Your task to perform on an android device: clear all cookies in the chrome app Image 0: 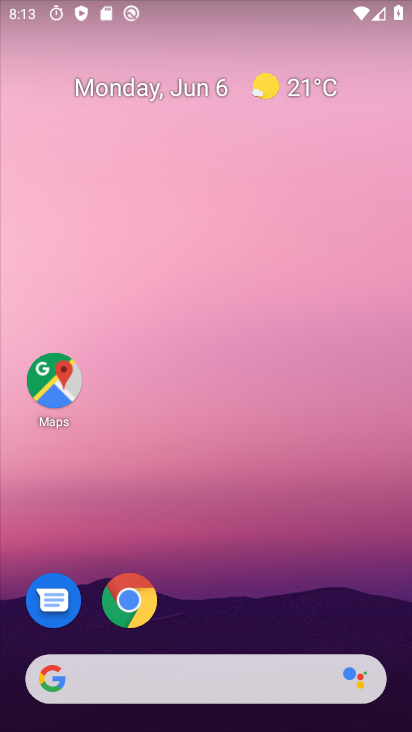
Step 0: drag from (258, 523) to (254, 21)
Your task to perform on an android device: clear all cookies in the chrome app Image 1: 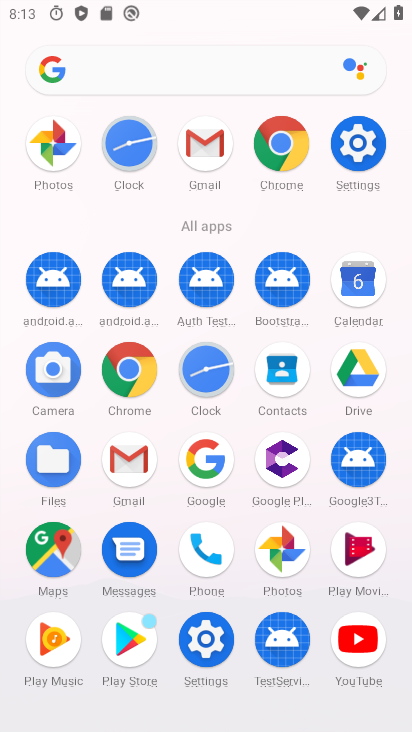
Step 1: click (124, 363)
Your task to perform on an android device: clear all cookies in the chrome app Image 2: 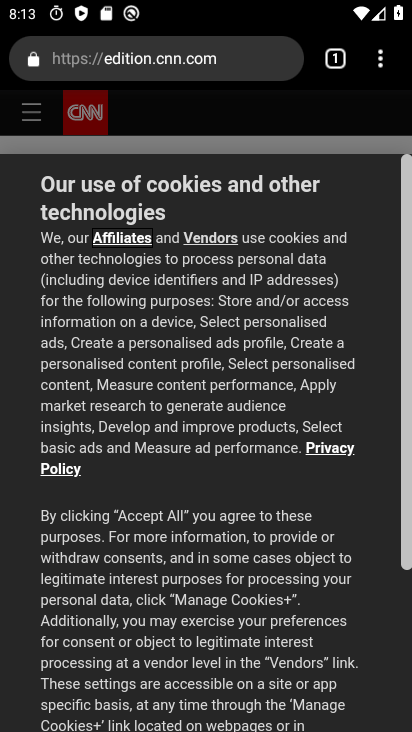
Step 2: drag from (384, 61) to (211, 333)
Your task to perform on an android device: clear all cookies in the chrome app Image 3: 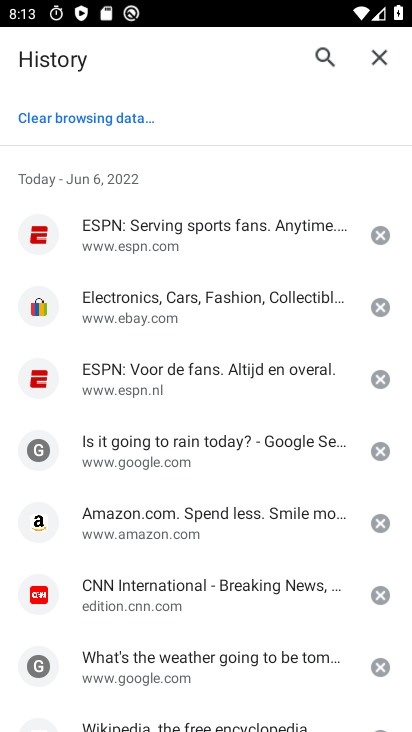
Step 3: click (387, 56)
Your task to perform on an android device: clear all cookies in the chrome app Image 4: 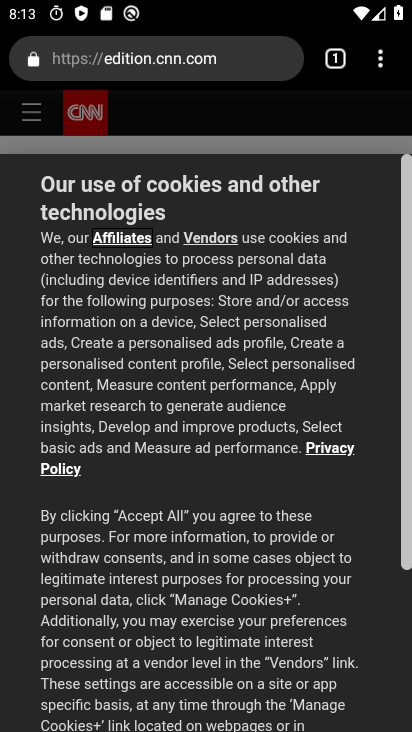
Step 4: drag from (372, 69) to (227, 623)
Your task to perform on an android device: clear all cookies in the chrome app Image 5: 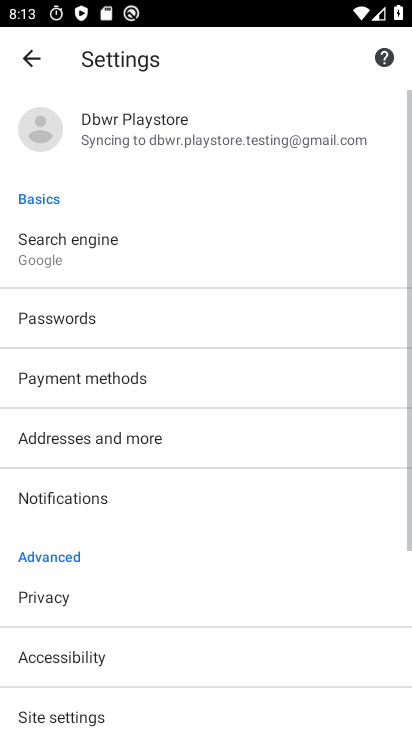
Step 5: drag from (218, 557) to (273, 124)
Your task to perform on an android device: clear all cookies in the chrome app Image 6: 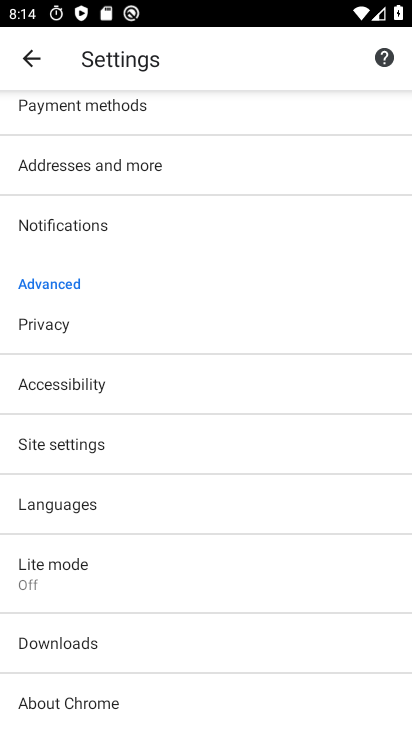
Step 6: drag from (224, 497) to (238, 201)
Your task to perform on an android device: clear all cookies in the chrome app Image 7: 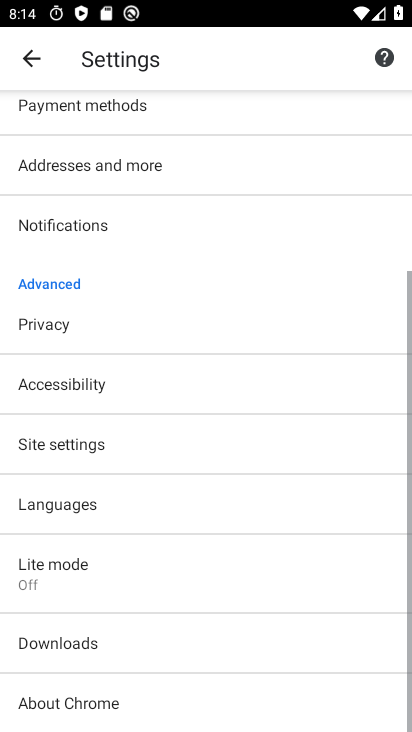
Step 7: click (96, 323)
Your task to perform on an android device: clear all cookies in the chrome app Image 8: 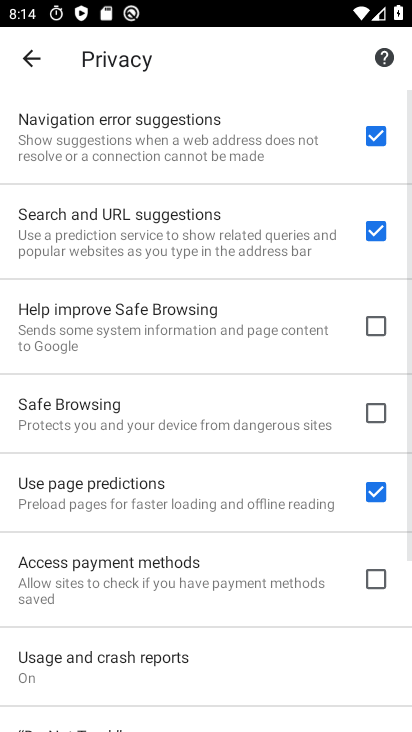
Step 8: drag from (198, 606) to (252, 131)
Your task to perform on an android device: clear all cookies in the chrome app Image 9: 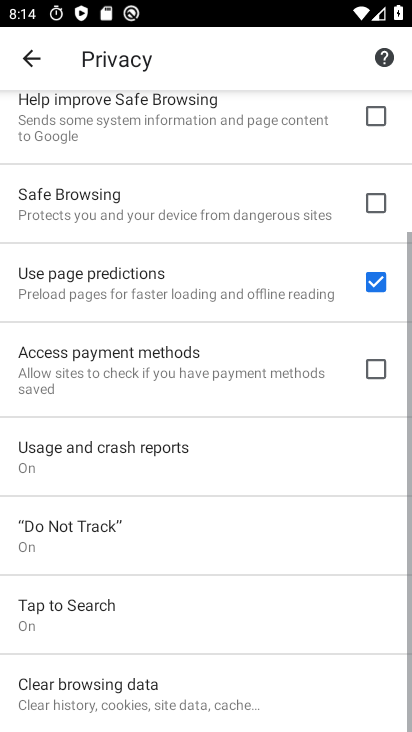
Step 9: click (115, 712)
Your task to perform on an android device: clear all cookies in the chrome app Image 10: 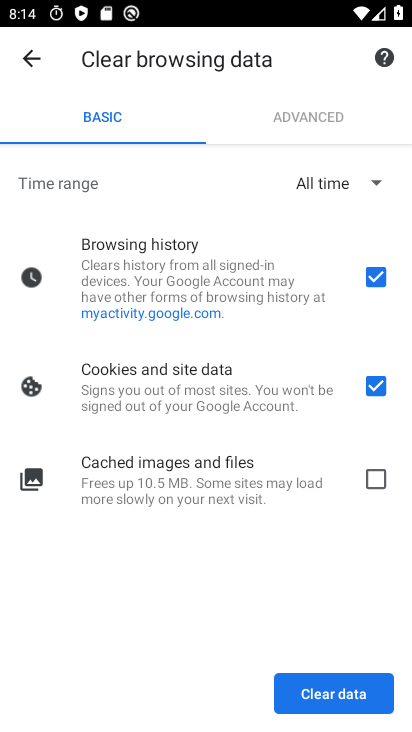
Step 10: click (377, 279)
Your task to perform on an android device: clear all cookies in the chrome app Image 11: 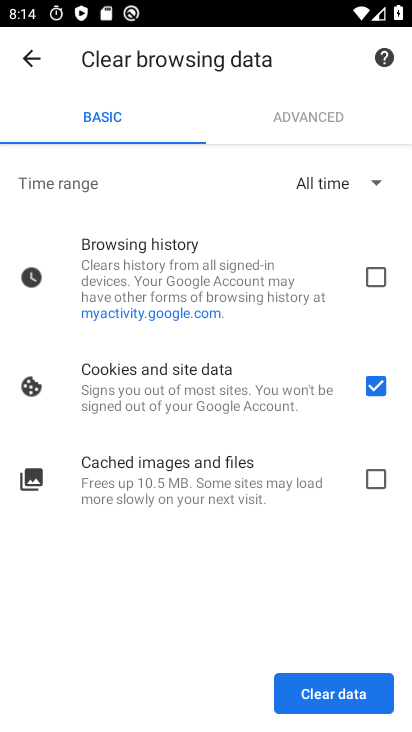
Step 11: click (339, 692)
Your task to perform on an android device: clear all cookies in the chrome app Image 12: 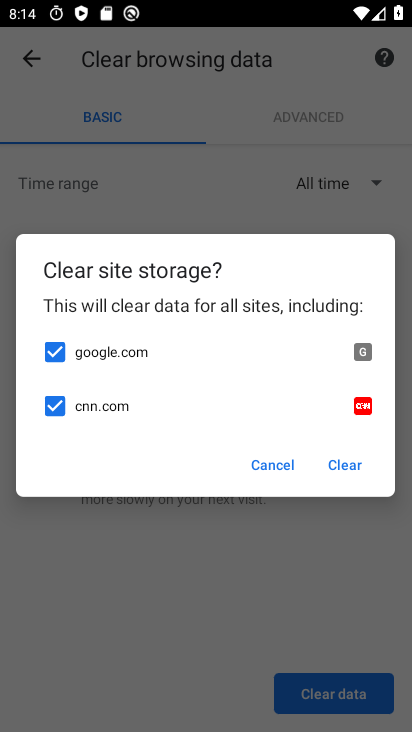
Step 12: click (342, 465)
Your task to perform on an android device: clear all cookies in the chrome app Image 13: 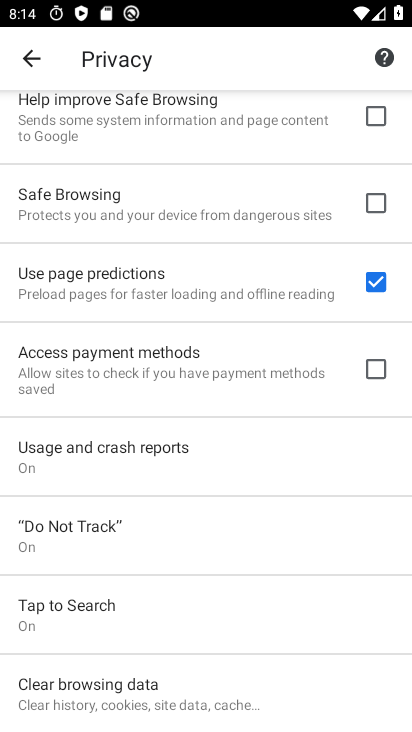
Step 13: task complete